Your task to perform on an android device: make emails show in primary in the gmail app Image 0: 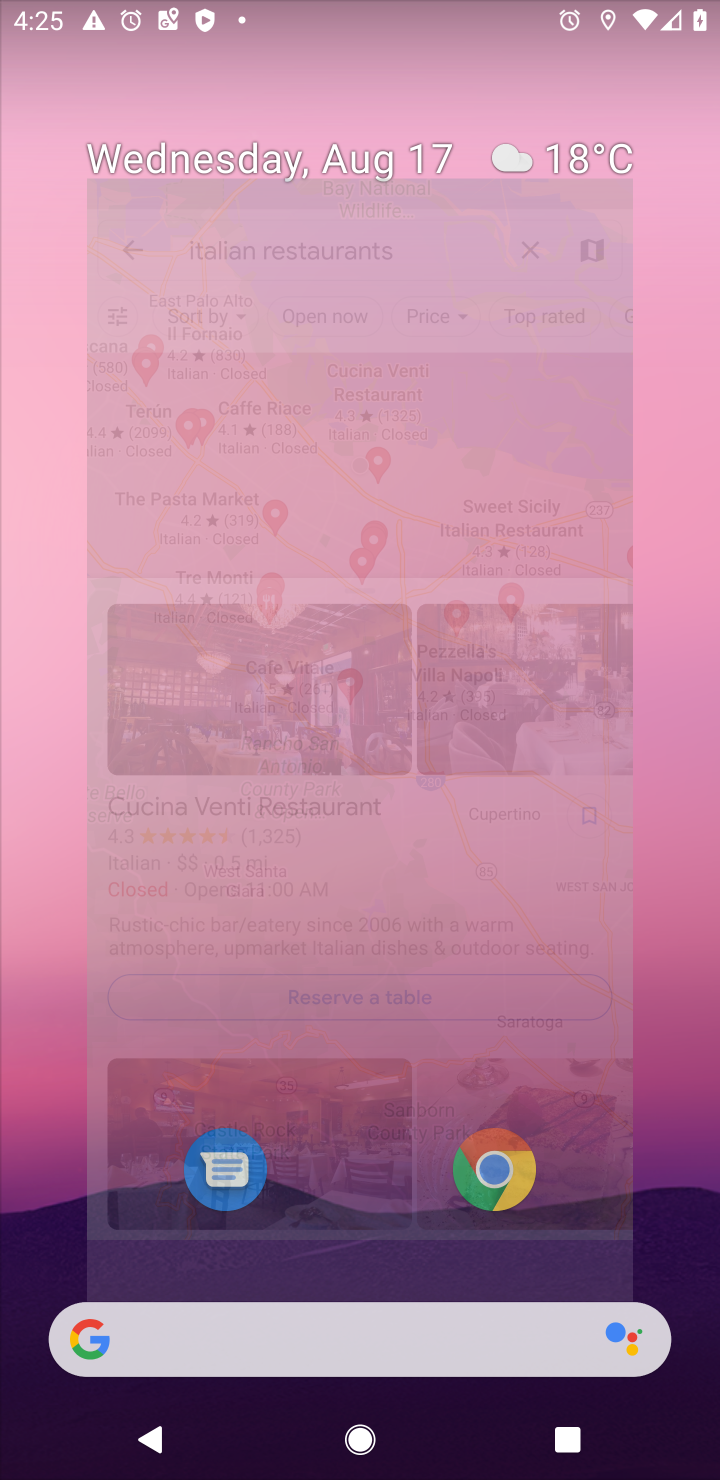
Step 0: press home button
Your task to perform on an android device: make emails show in primary in the gmail app Image 1: 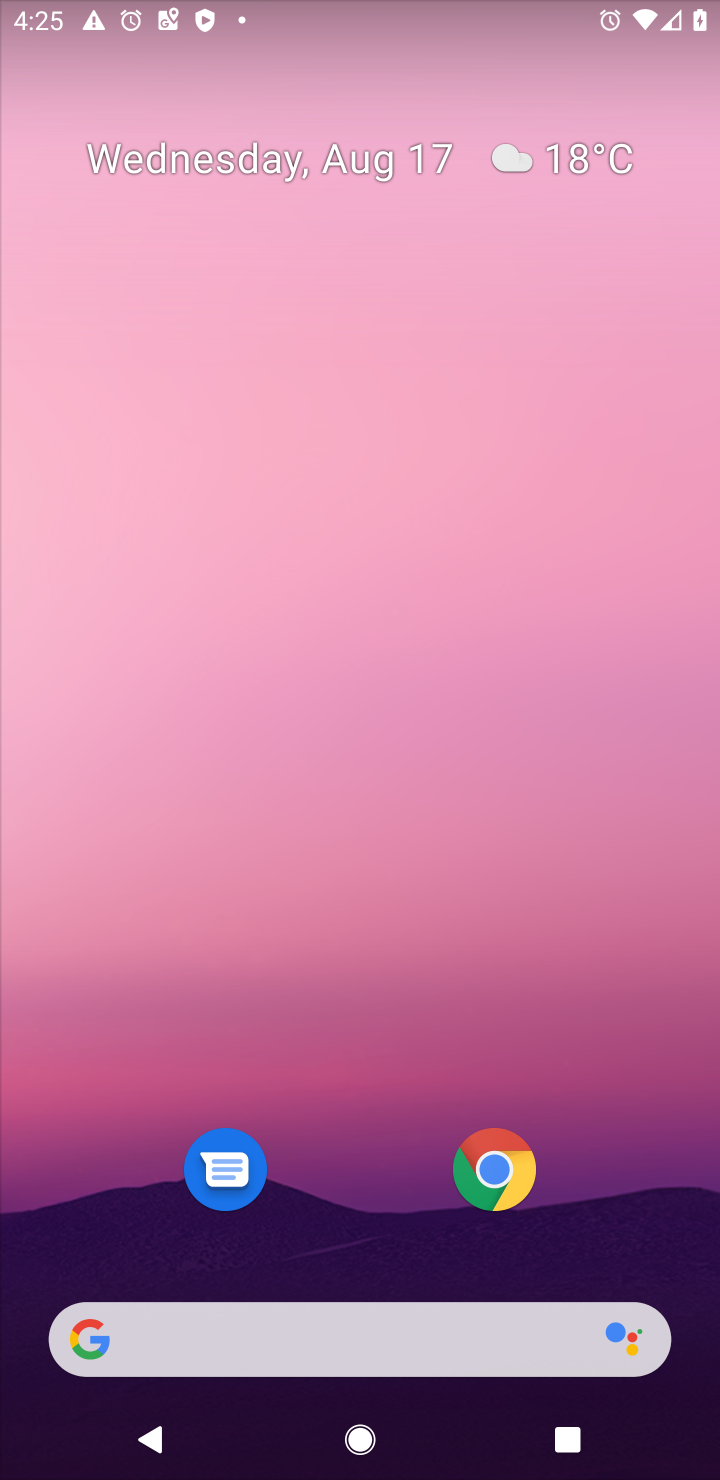
Step 1: drag from (416, 714) to (404, 8)
Your task to perform on an android device: make emails show in primary in the gmail app Image 2: 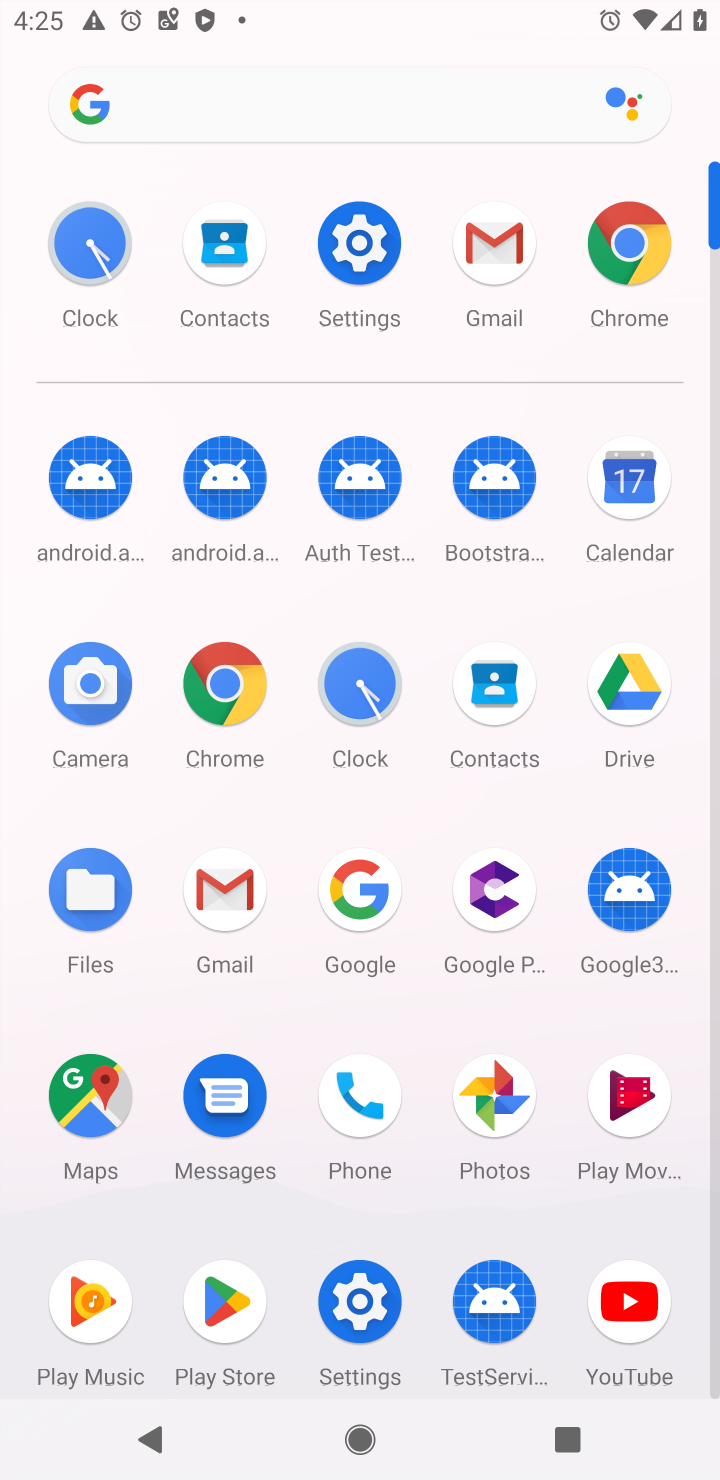
Step 2: click (223, 888)
Your task to perform on an android device: make emails show in primary in the gmail app Image 3: 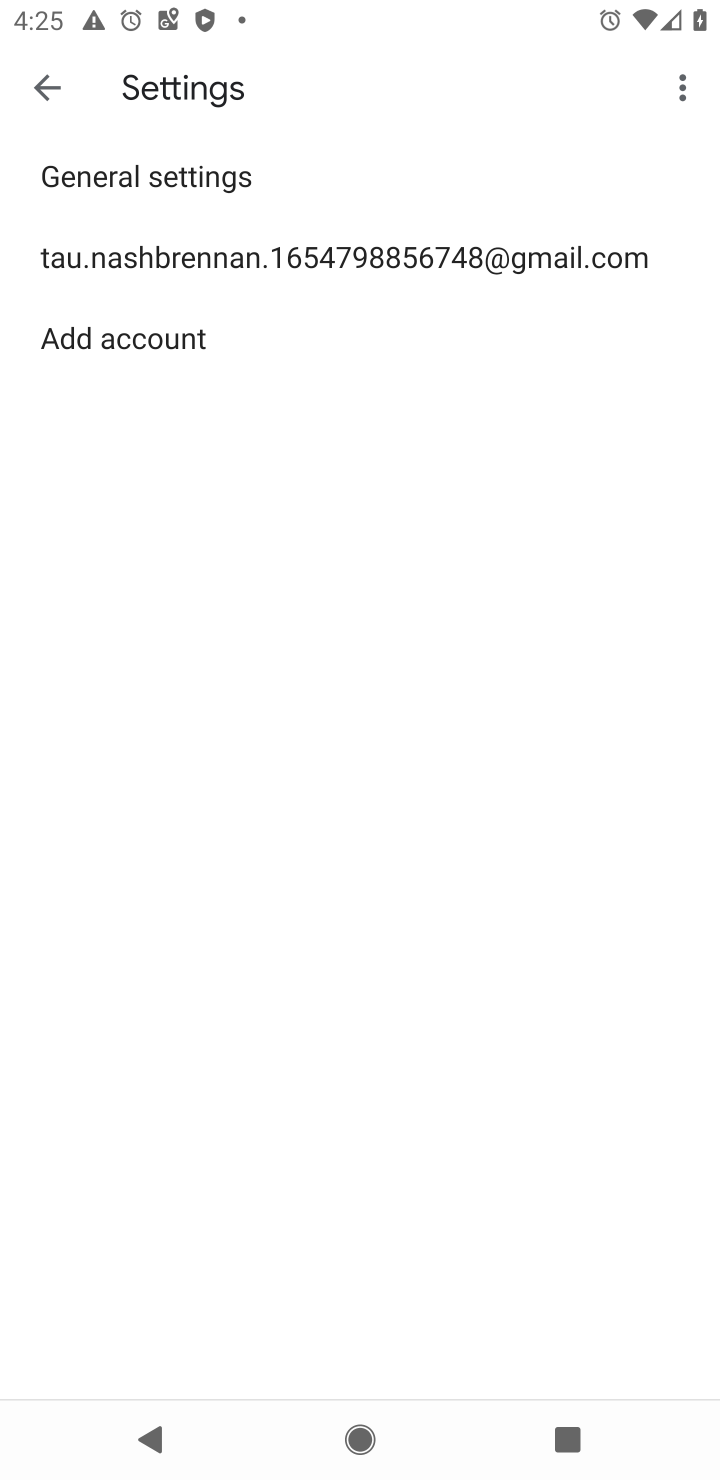
Step 3: click (502, 247)
Your task to perform on an android device: make emails show in primary in the gmail app Image 4: 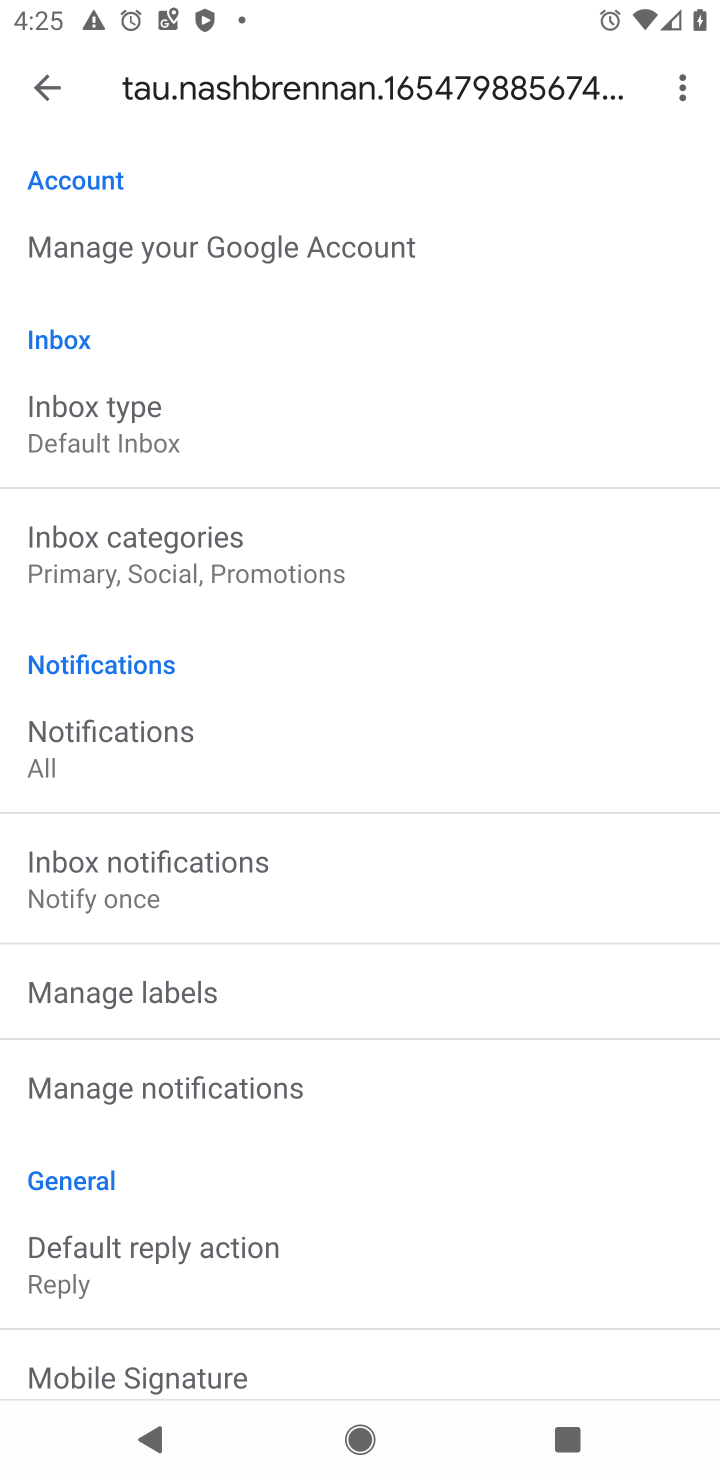
Step 4: click (158, 868)
Your task to perform on an android device: make emails show in primary in the gmail app Image 5: 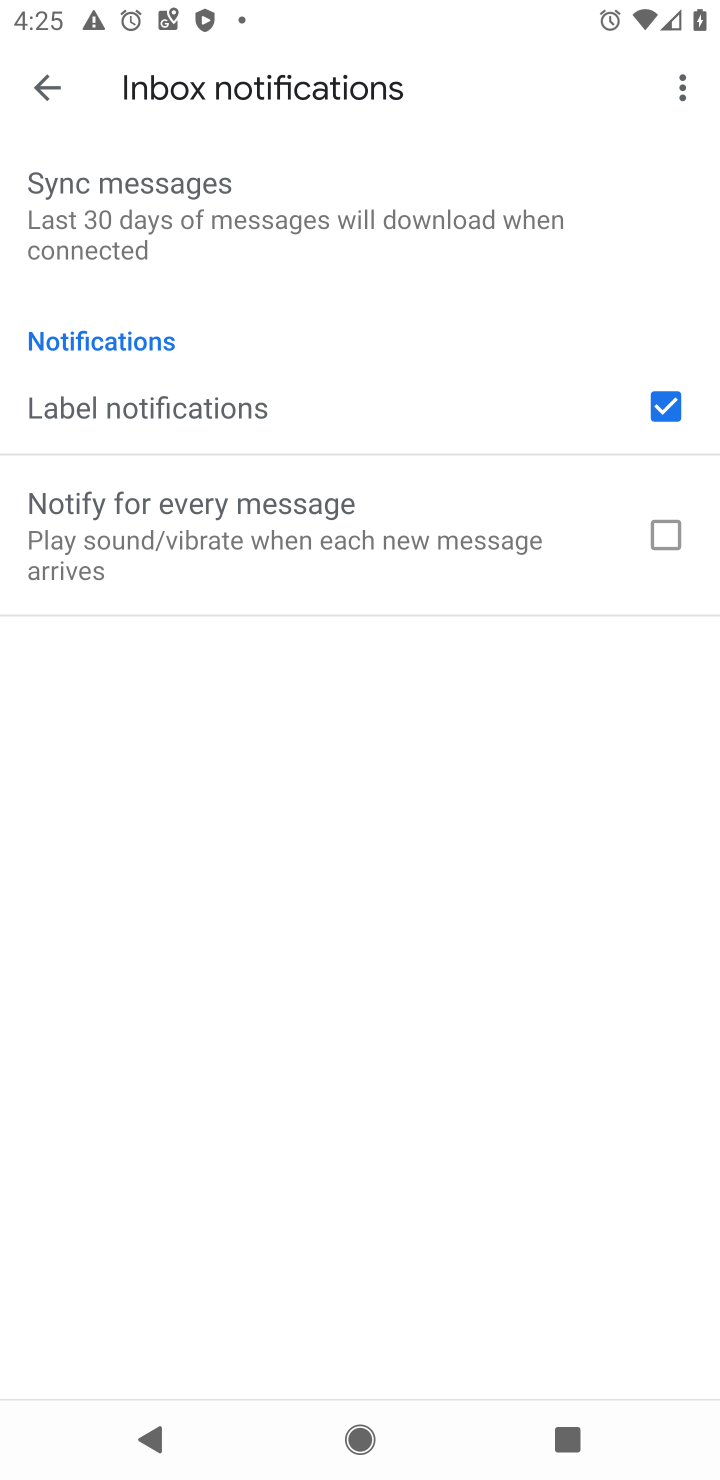
Step 5: task complete